Your task to perform on an android device: change notifications settings Image 0: 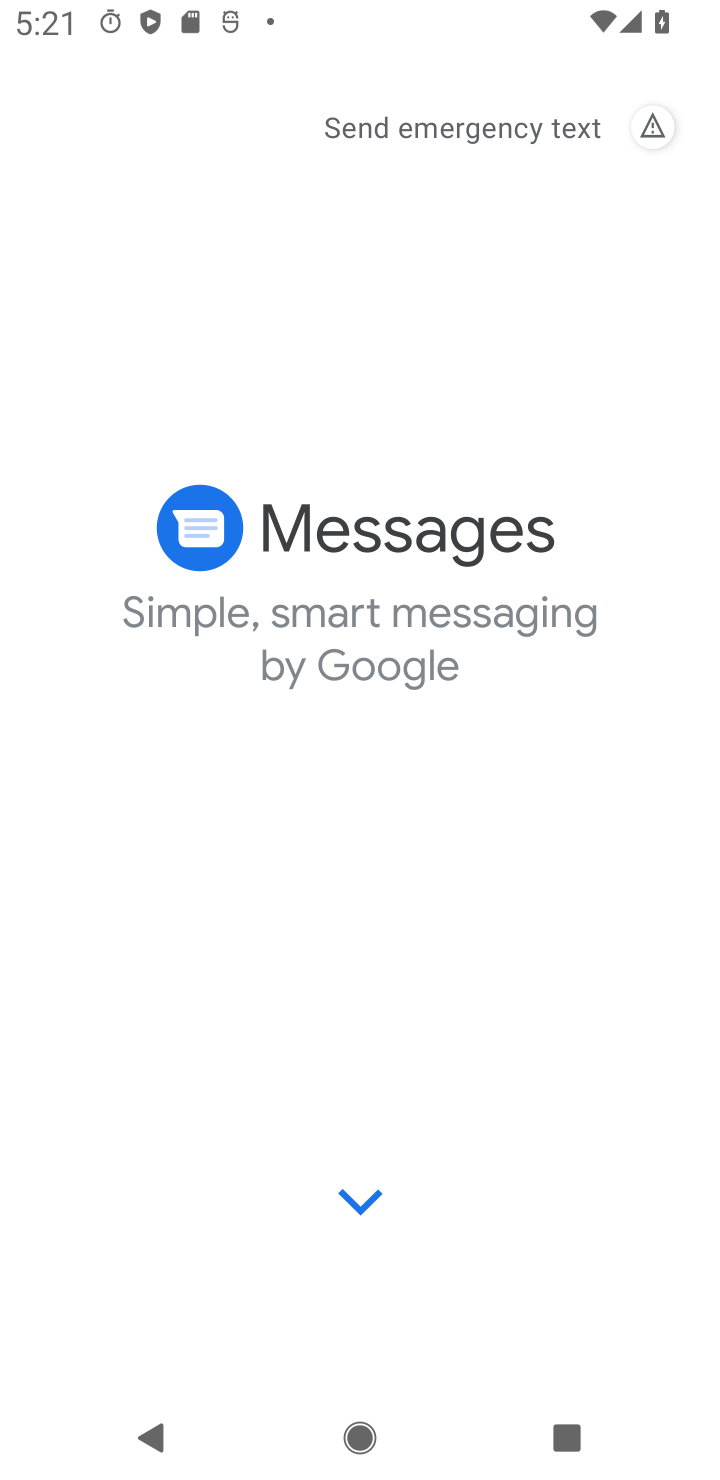
Step 0: press back button
Your task to perform on an android device: change notifications settings Image 1: 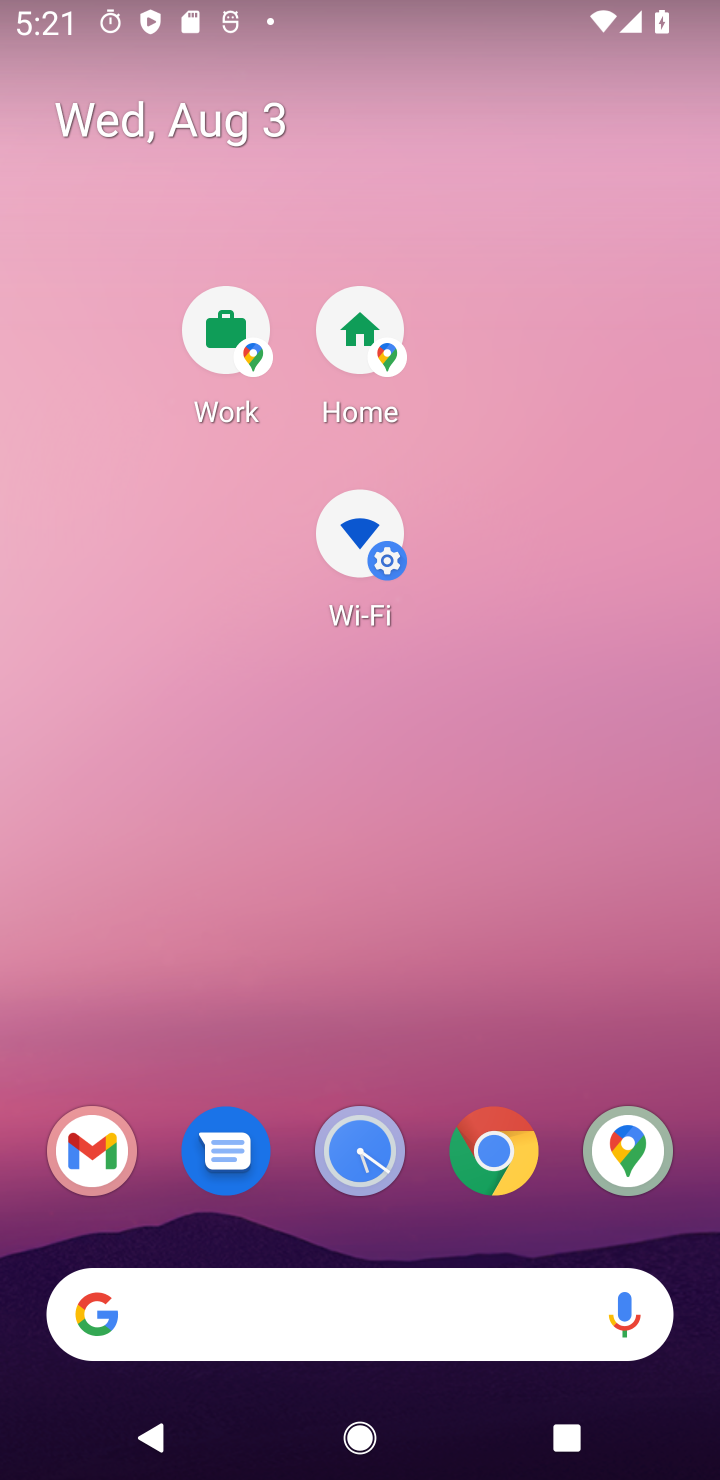
Step 1: drag from (394, 733) to (359, 268)
Your task to perform on an android device: change notifications settings Image 2: 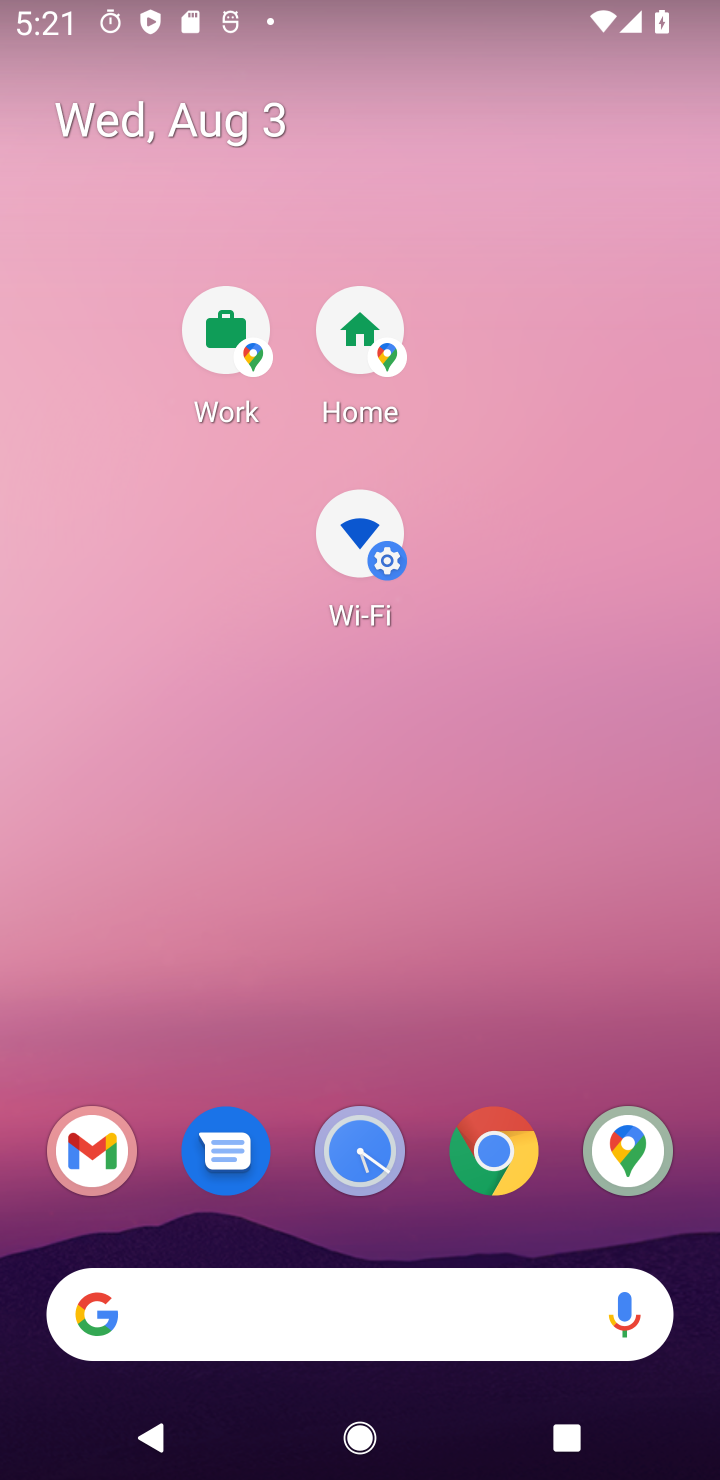
Step 2: drag from (307, 478) to (299, 313)
Your task to perform on an android device: change notifications settings Image 3: 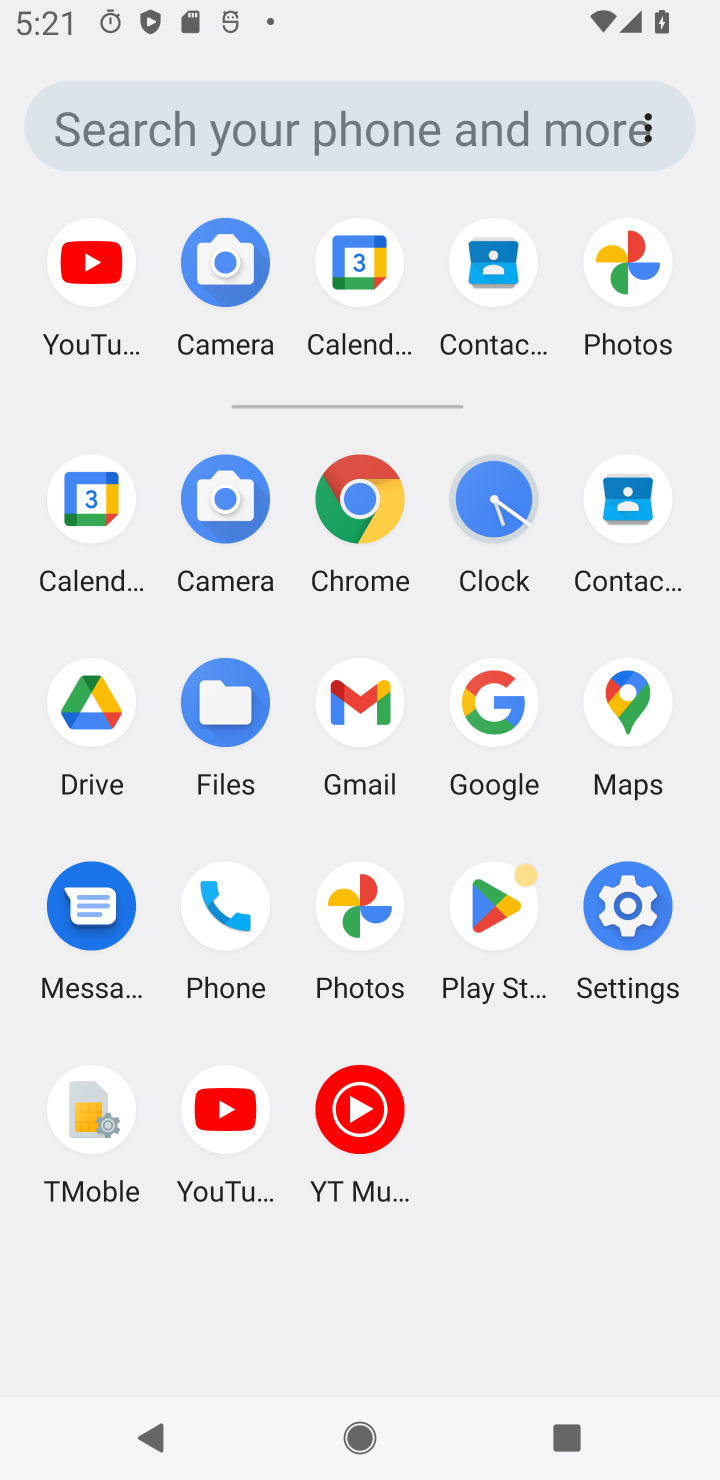
Step 3: drag from (497, 500) to (503, 76)
Your task to perform on an android device: change notifications settings Image 4: 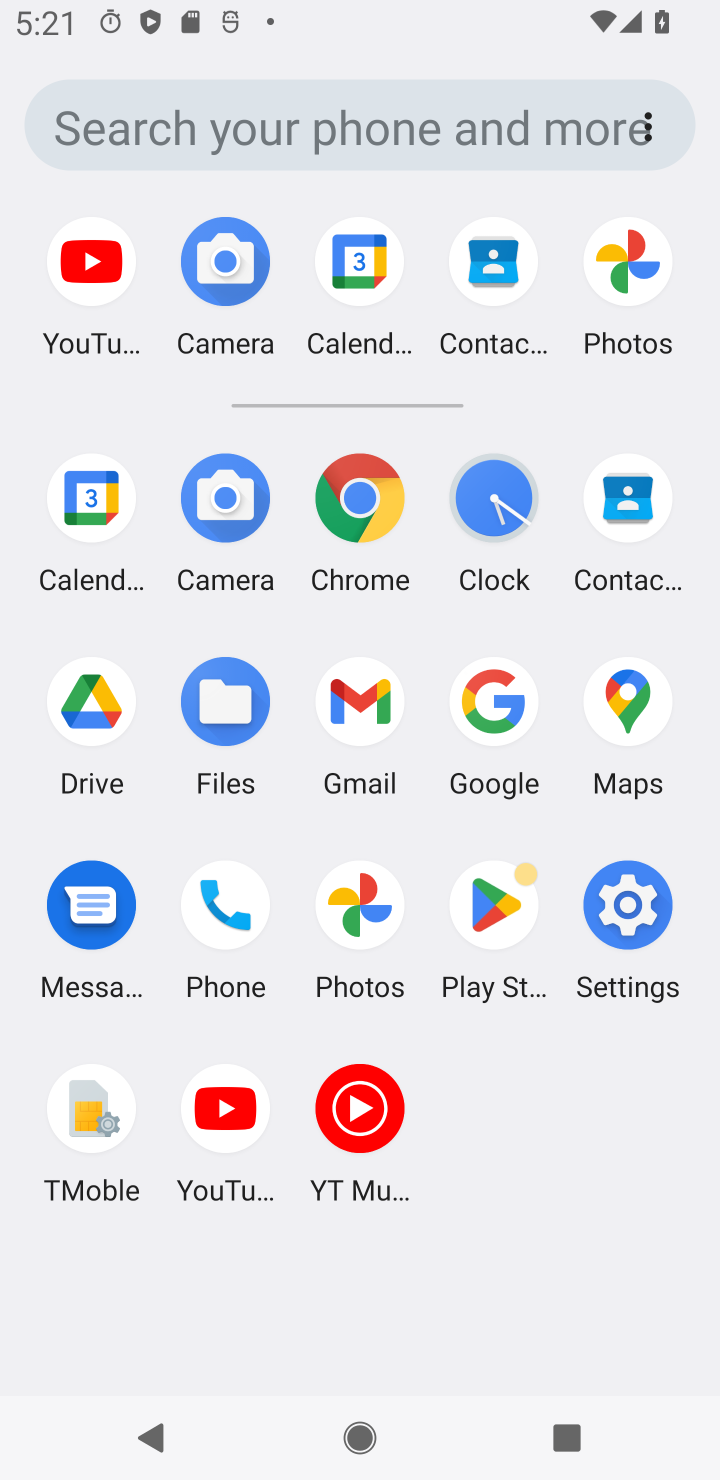
Step 4: click (622, 916)
Your task to perform on an android device: change notifications settings Image 5: 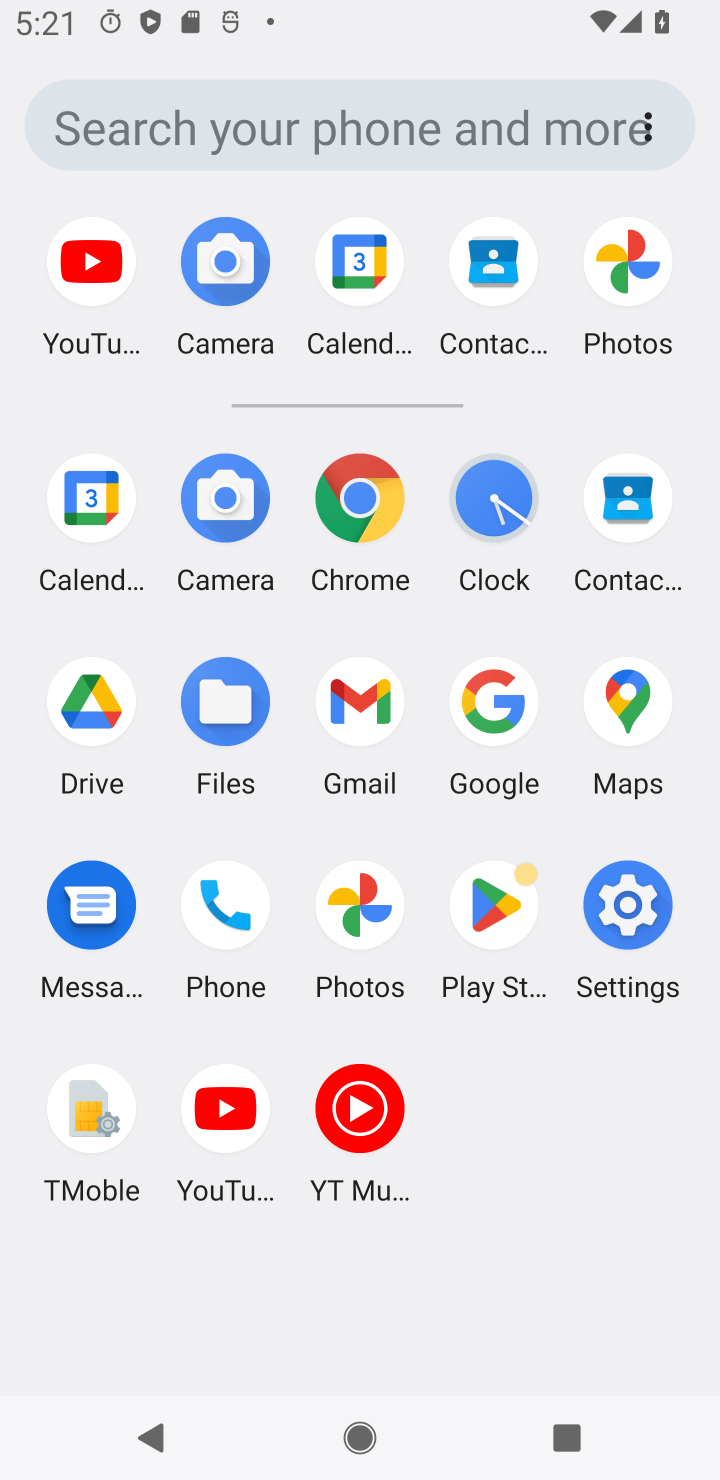
Step 5: click (622, 912)
Your task to perform on an android device: change notifications settings Image 6: 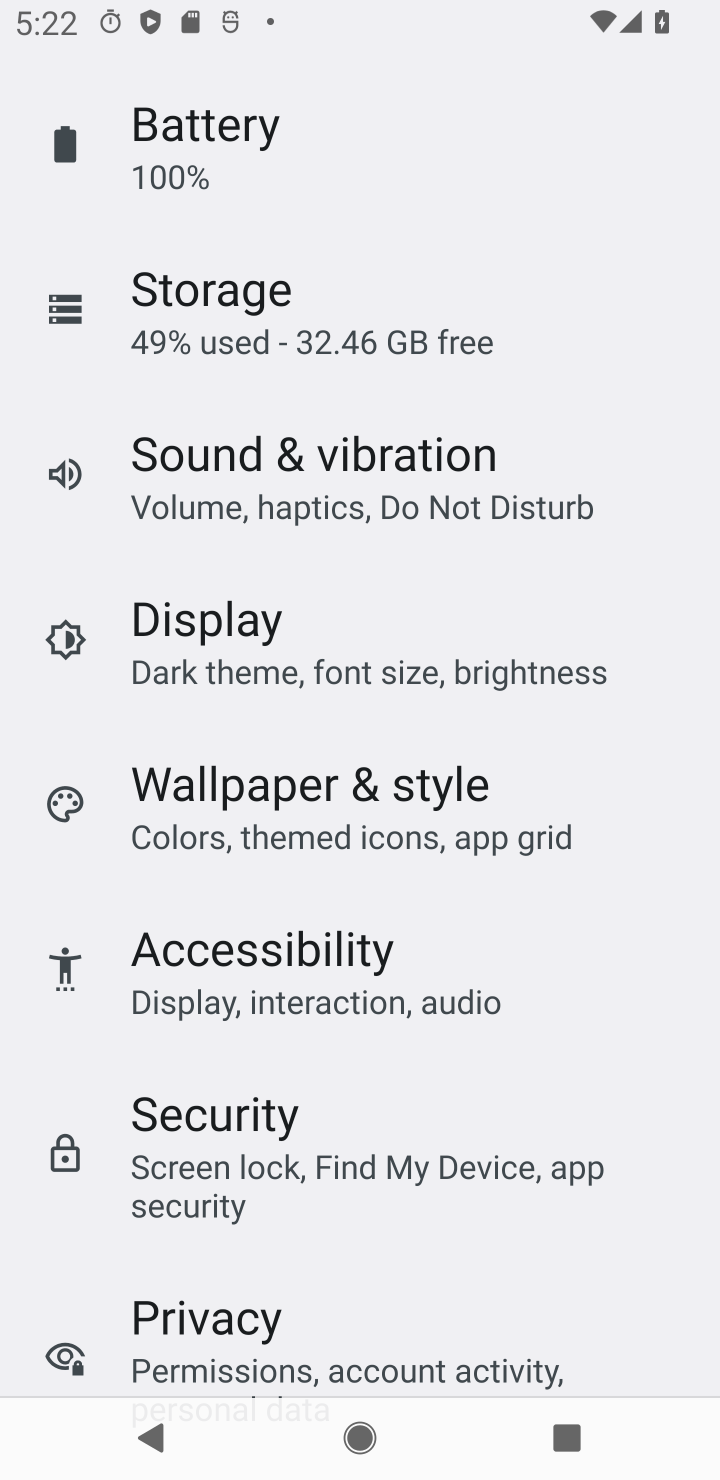
Step 6: drag from (462, 886) to (444, 241)
Your task to perform on an android device: change notifications settings Image 7: 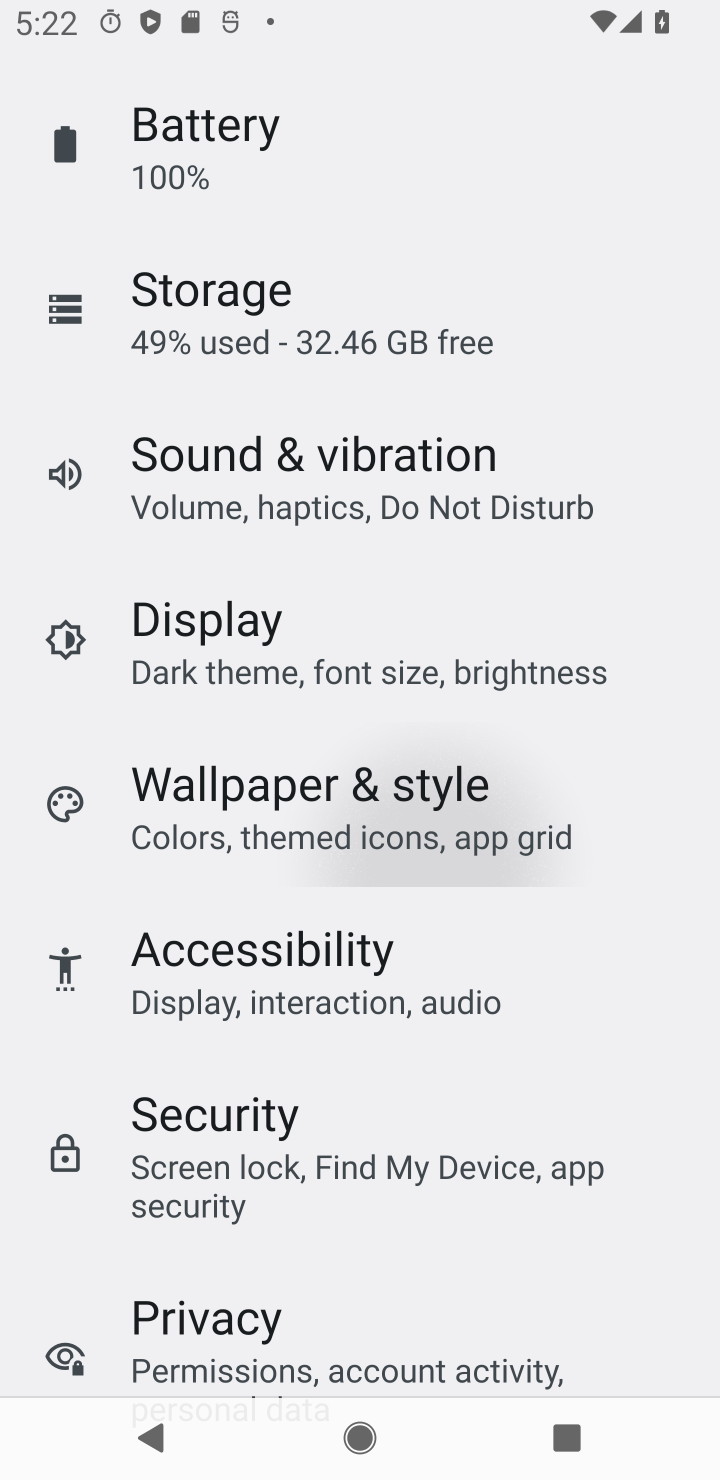
Step 7: drag from (385, 691) to (329, 482)
Your task to perform on an android device: change notifications settings Image 8: 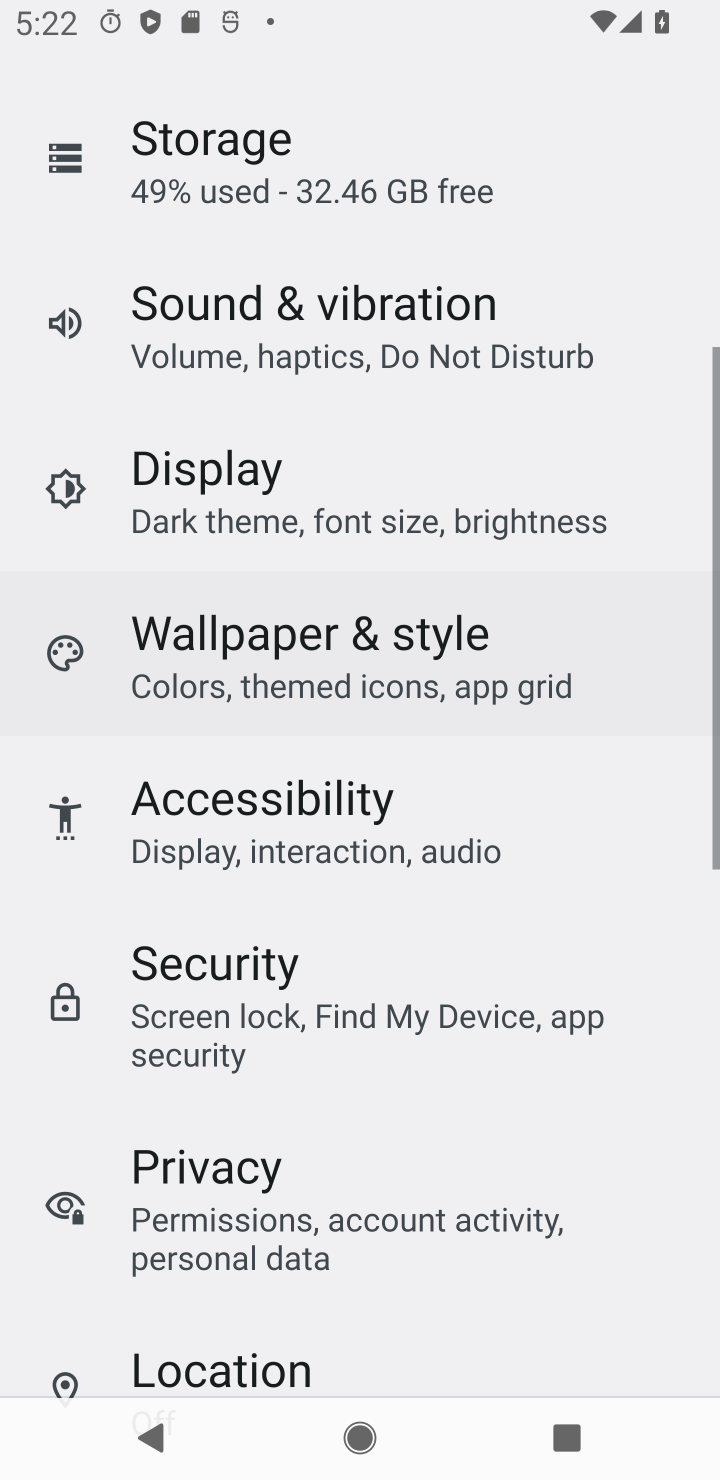
Step 8: drag from (407, 1032) to (395, 596)
Your task to perform on an android device: change notifications settings Image 9: 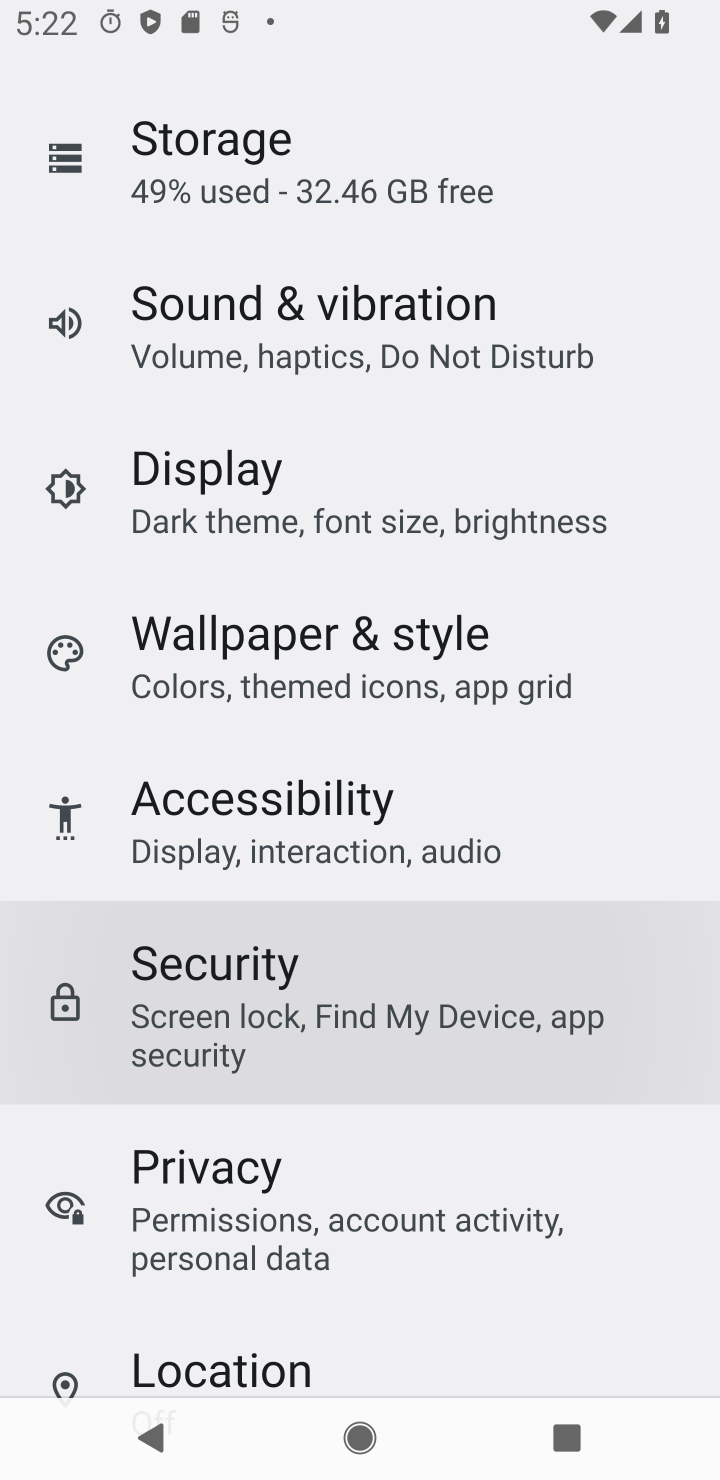
Step 9: drag from (503, 1188) to (431, 618)
Your task to perform on an android device: change notifications settings Image 10: 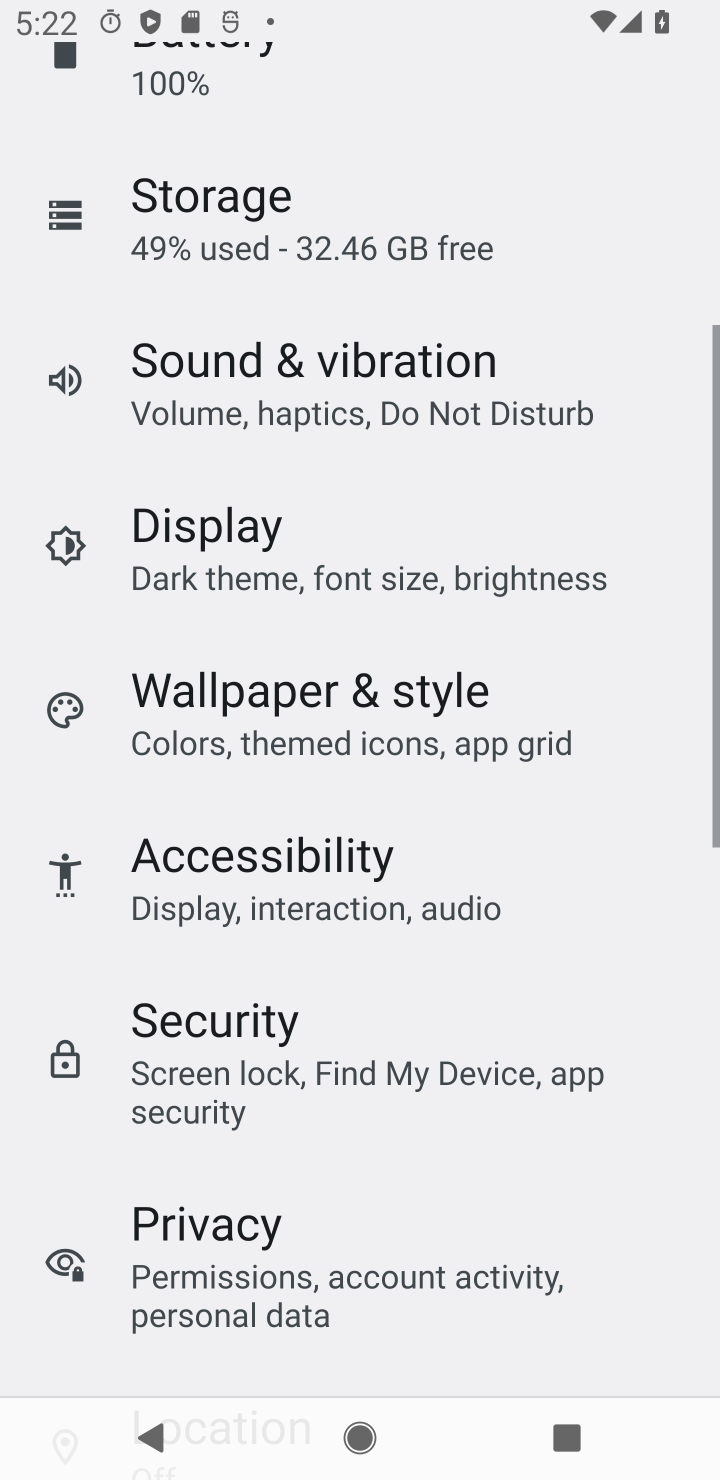
Step 10: drag from (334, 840) to (345, 435)
Your task to perform on an android device: change notifications settings Image 11: 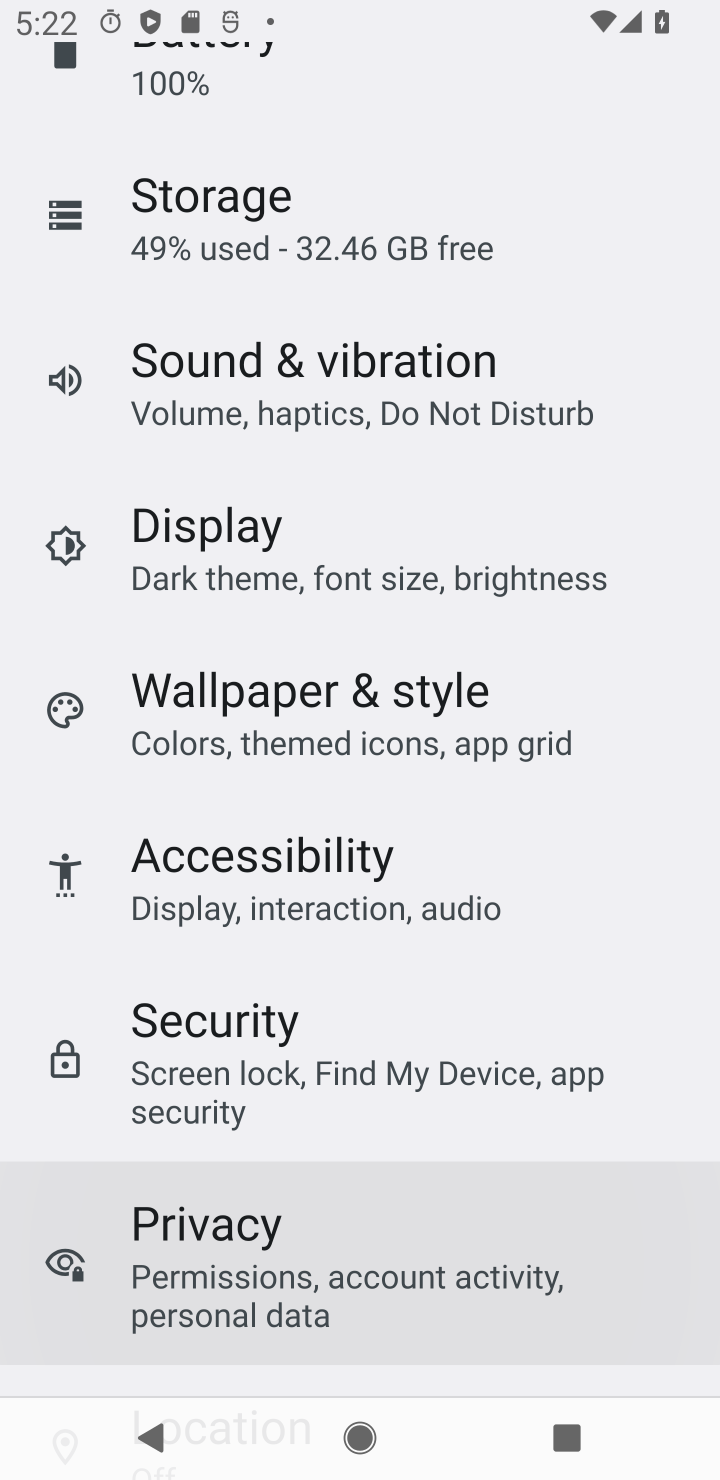
Step 11: drag from (325, 965) to (325, 298)
Your task to perform on an android device: change notifications settings Image 12: 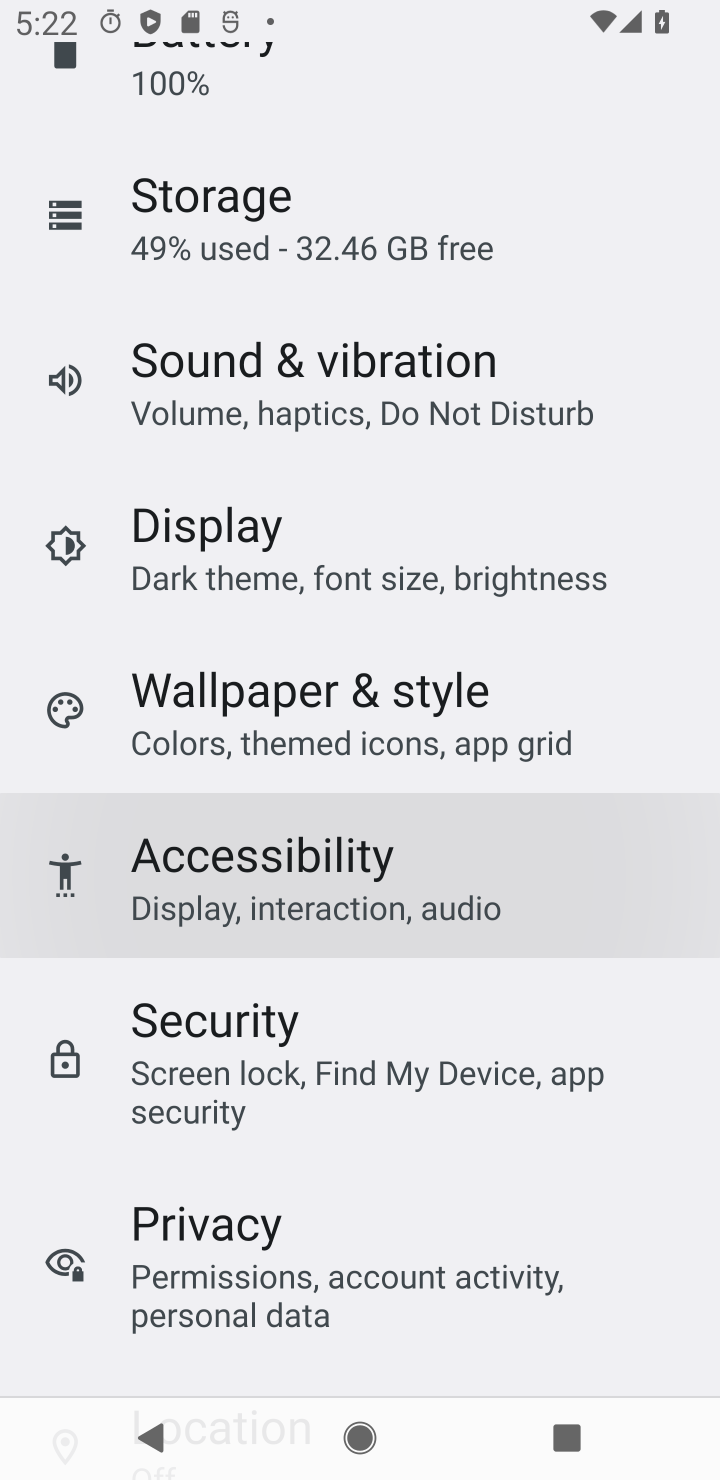
Step 12: drag from (323, 926) to (303, 708)
Your task to perform on an android device: change notifications settings Image 13: 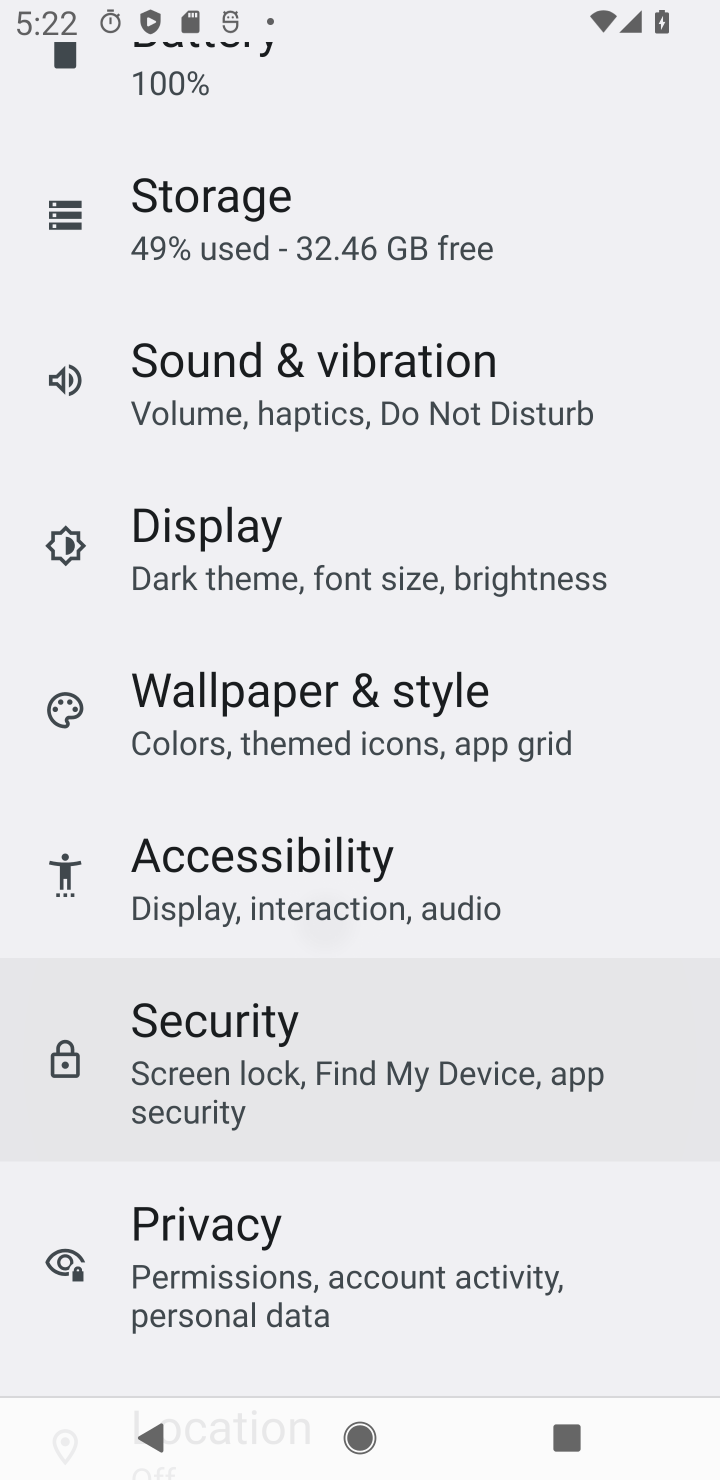
Step 13: drag from (292, 714) to (412, 646)
Your task to perform on an android device: change notifications settings Image 14: 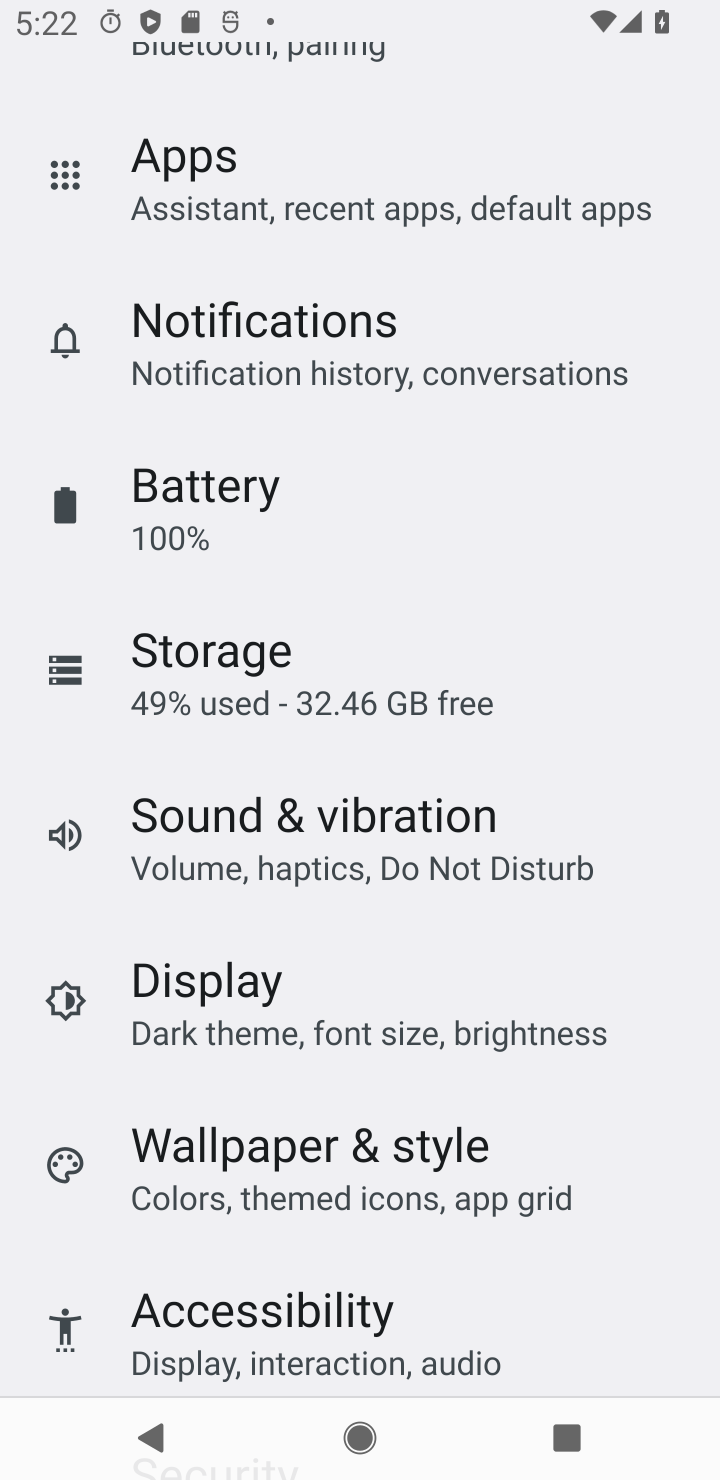
Step 14: click (244, 323)
Your task to perform on an android device: change notifications settings Image 15: 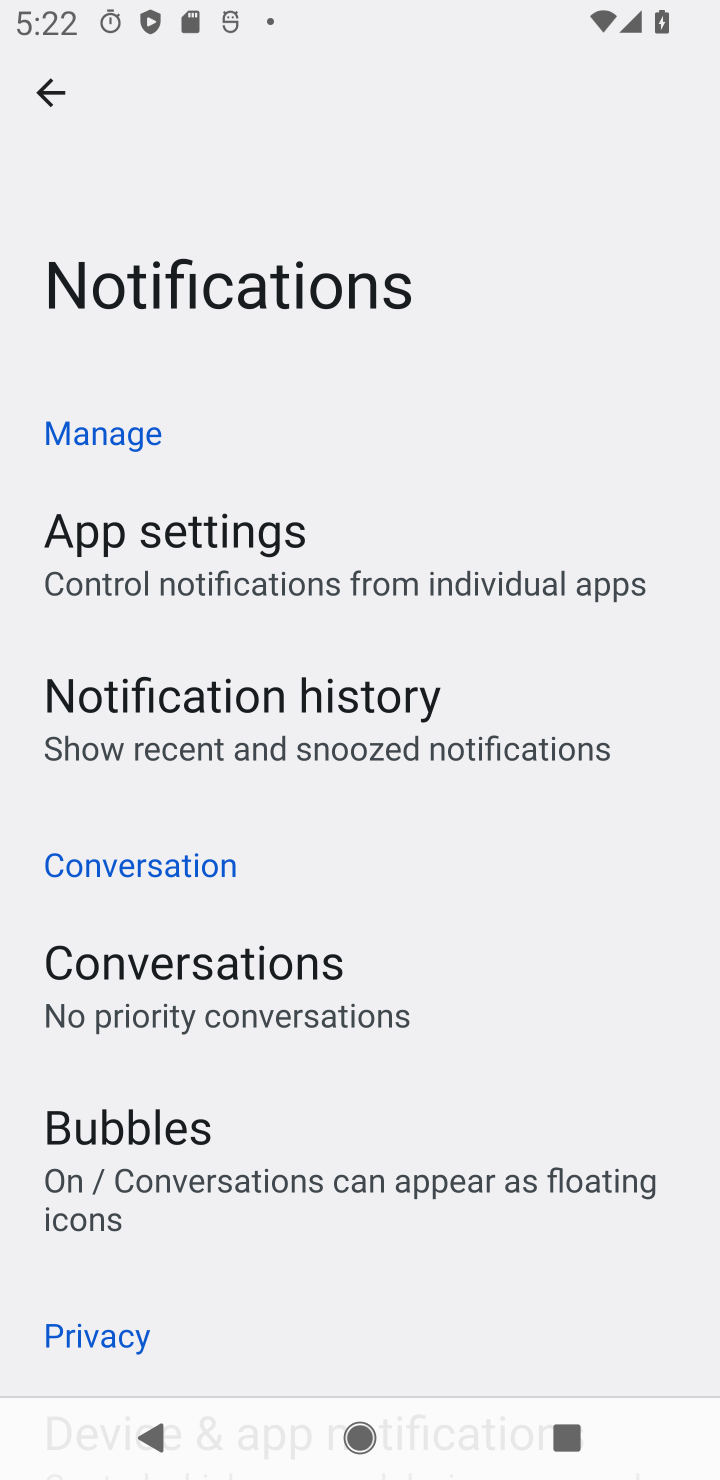
Step 15: task complete